Your task to perform on an android device: Go to eBay Image 0: 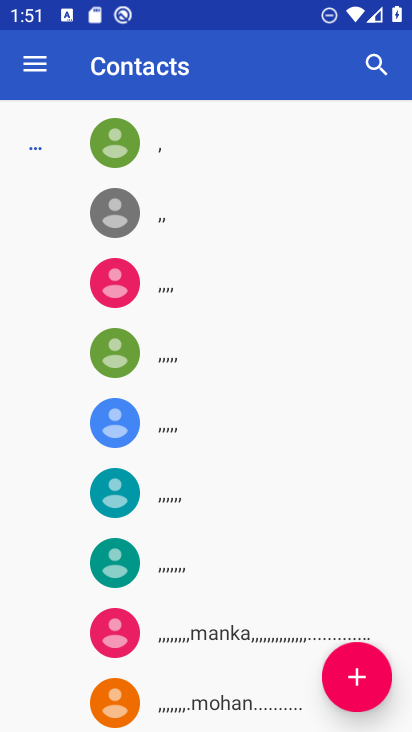
Step 0: press back button
Your task to perform on an android device: Go to eBay Image 1: 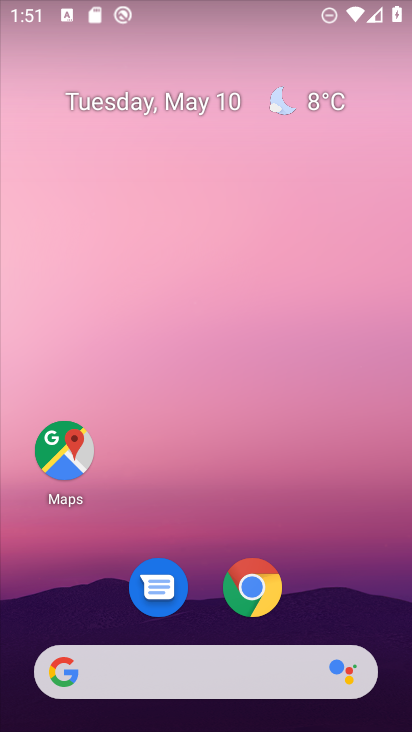
Step 1: click (269, 582)
Your task to perform on an android device: Go to eBay Image 2: 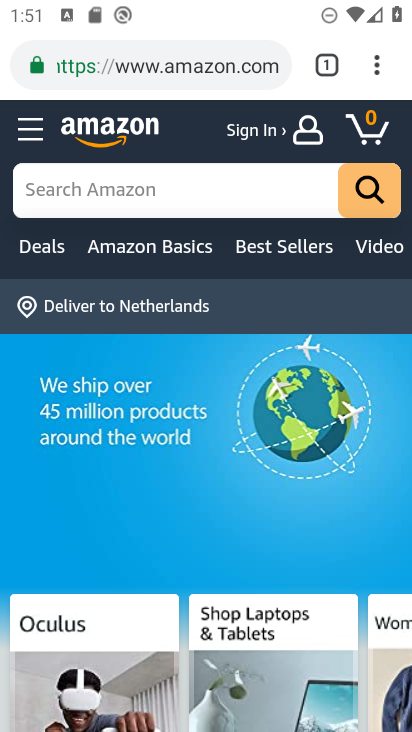
Step 2: click (278, 61)
Your task to perform on an android device: Go to eBay Image 3: 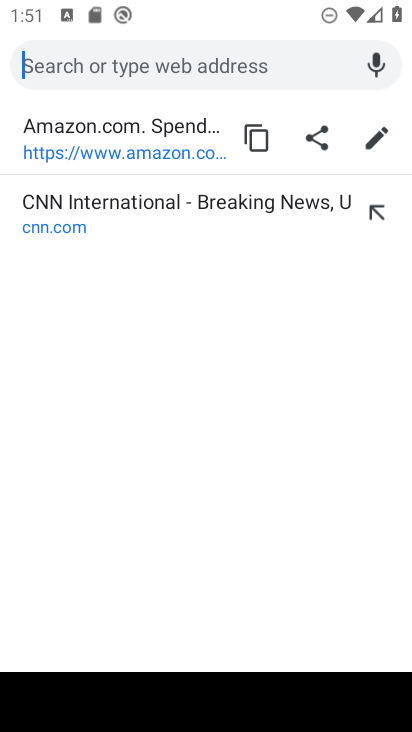
Step 3: type "eBay"
Your task to perform on an android device: Go to eBay Image 4: 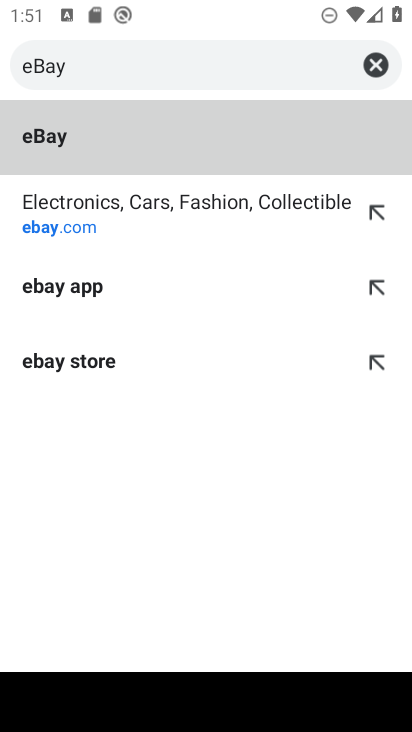
Step 4: click (42, 133)
Your task to perform on an android device: Go to eBay Image 5: 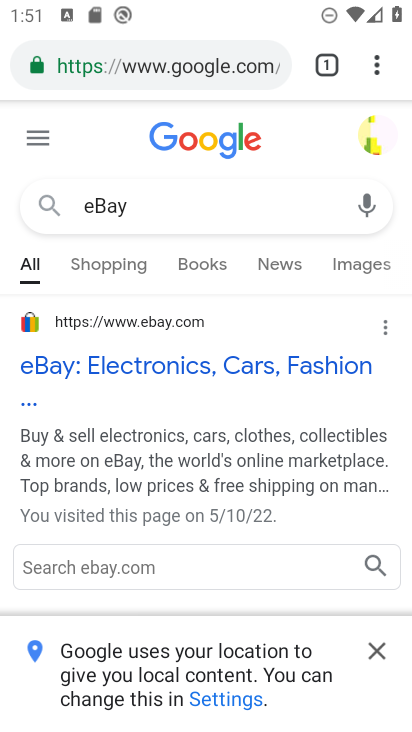
Step 5: task complete